Your task to perform on an android device: Open location settings Image 0: 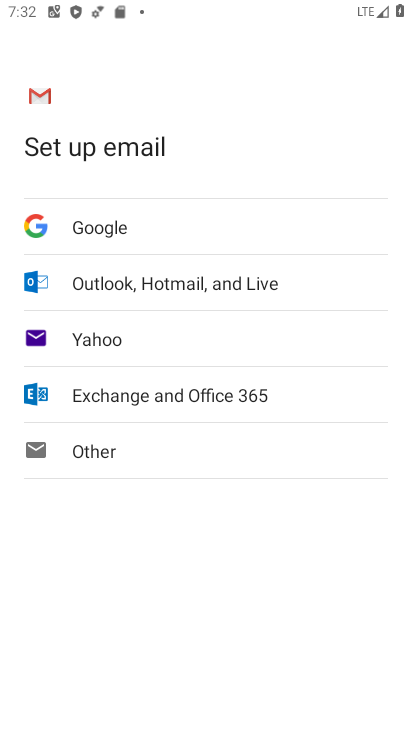
Step 0: press home button
Your task to perform on an android device: Open location settings Image 1: 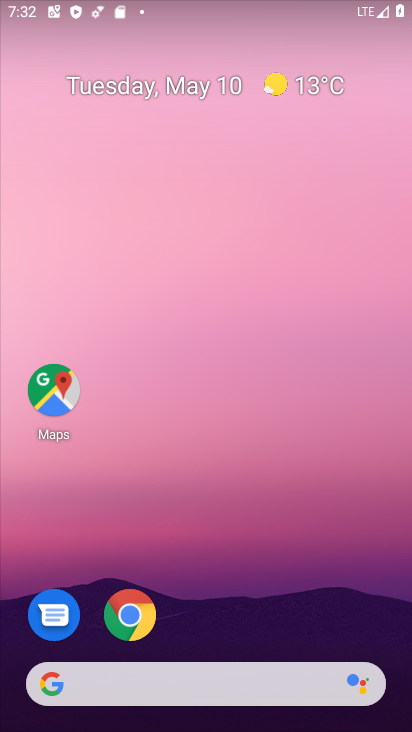
Step 1: drag from (266, 539) to (229, 16)
Your task to perform on an android device: Open location settings Image 2: 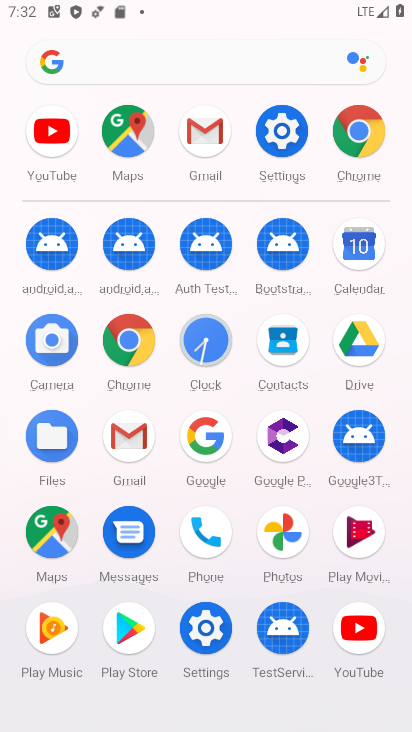
Step 2: click (289, 130)
Your task to perform on an android device: Open location settings Image 3: 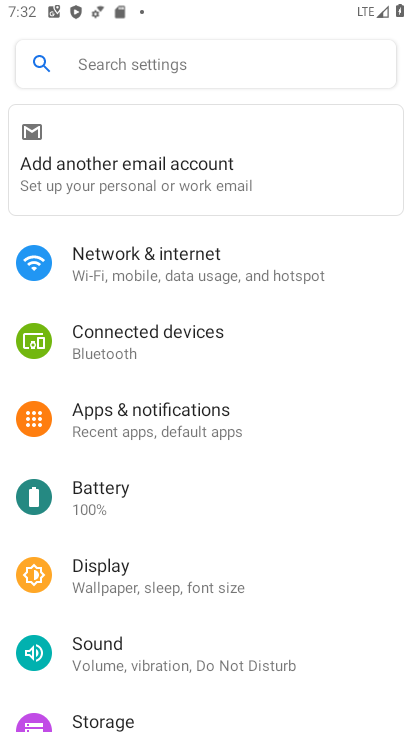
Step 3: drag from (192, 597) to (179, 234)
Your task to perform on an android device: Open location settings Image 4: 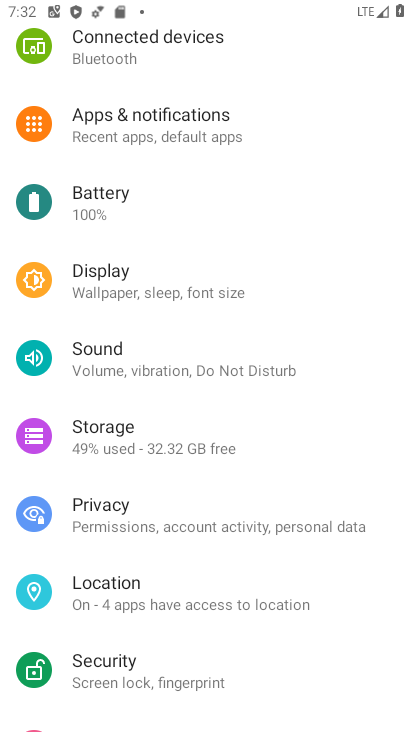
Step 4: click (159, 587)
Your task to perform on an android device: Open location settings Image 5: 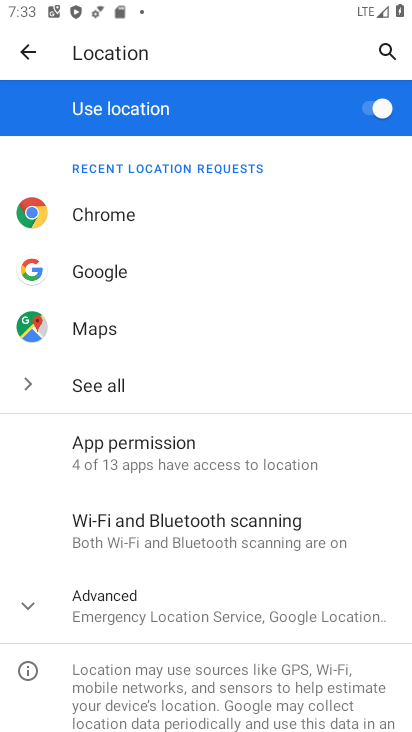
Step 5: task complete